Your task to perform on an android device: open device folders in google photos Image 0: 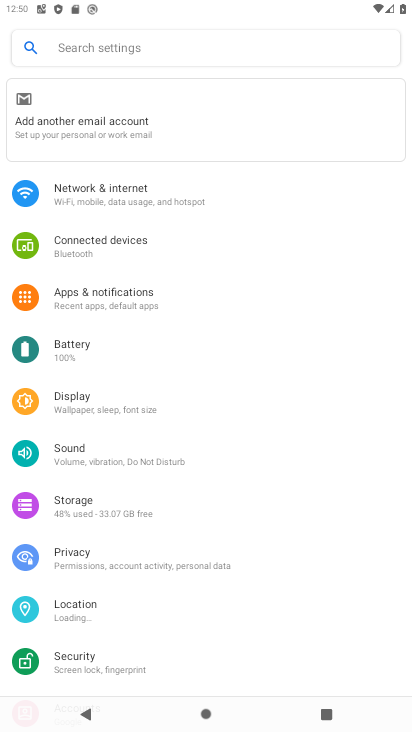
Step 0: press home button
Your task to perform on an android device: open device folders in google photos Image 1: 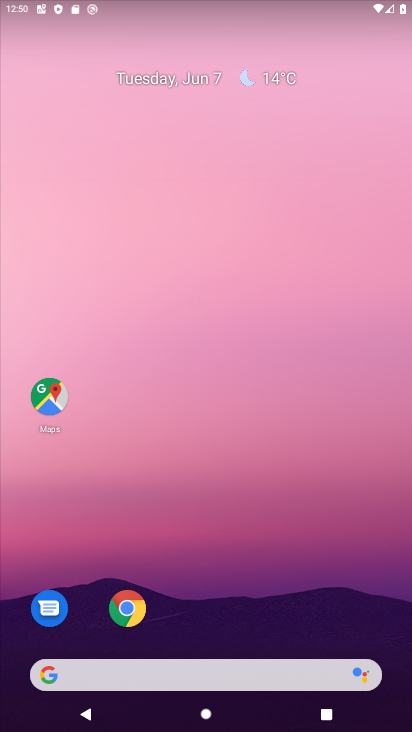
Step 1: drag from (237, 581) to (215, 111)
Your task to perform on an android device: open device folders in google photos Image 2: 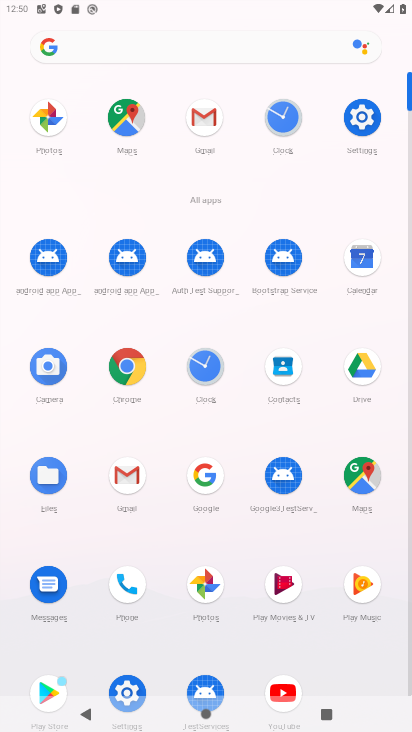
Step 2: click (44, 115)
Your task to perform on an android device: open device folders in google photos Image 3: 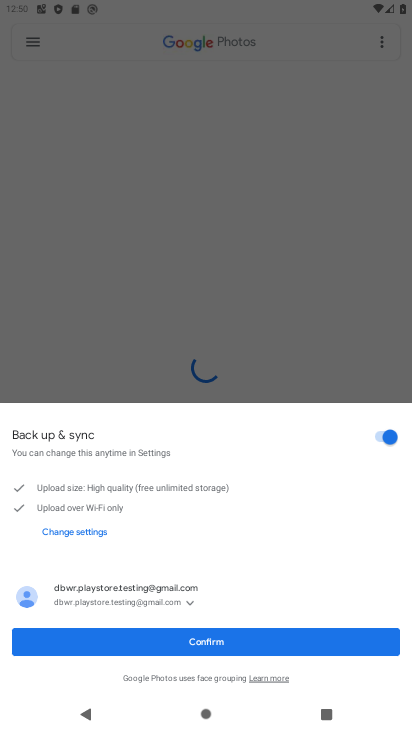
Step 3: click (245, 650)
Your task to perform on an android device: open device folders in google photos Image 4: 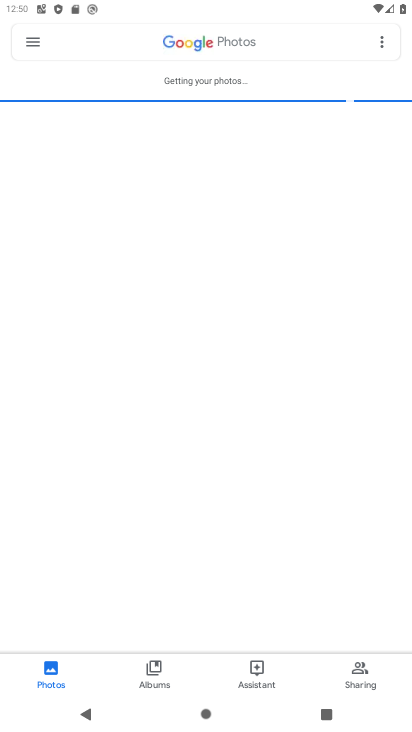
Step 4: click (32, 41)
Your task to perform on an android device: open device folders in google photos Image 5: 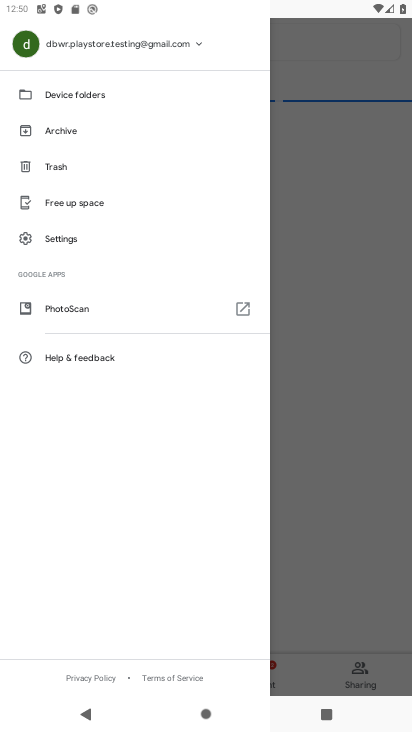
Step 5: click (106, 98)
Your task to perform on an android device: open device folders in google photos Image 6: 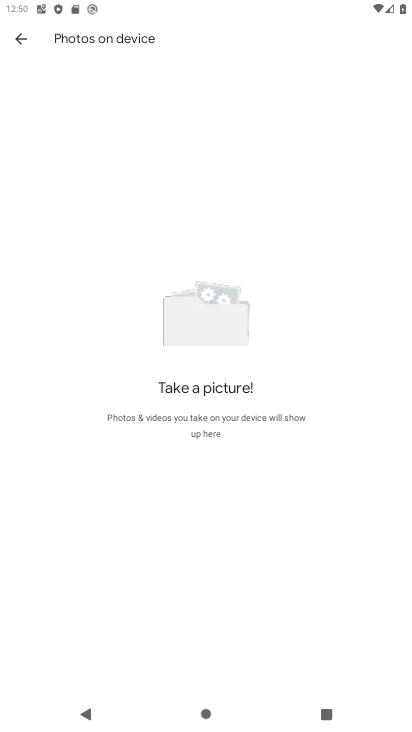
Step 6: task complete